Your task to perform on an android device: turn off location history Image 0: 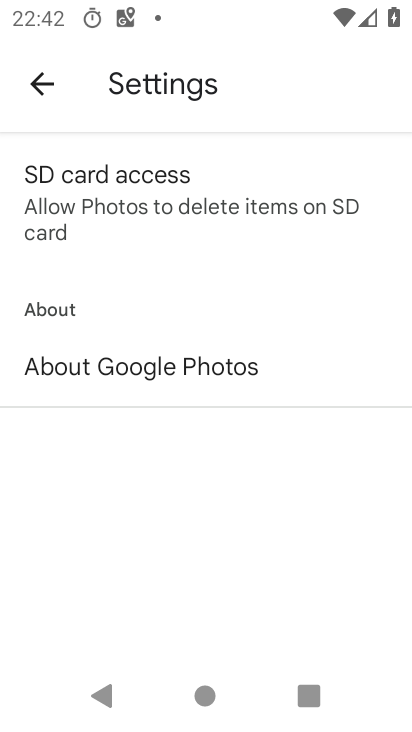
Step 0: click (48, 92)
Your task to perform on an android device: turn off location history Image 1: 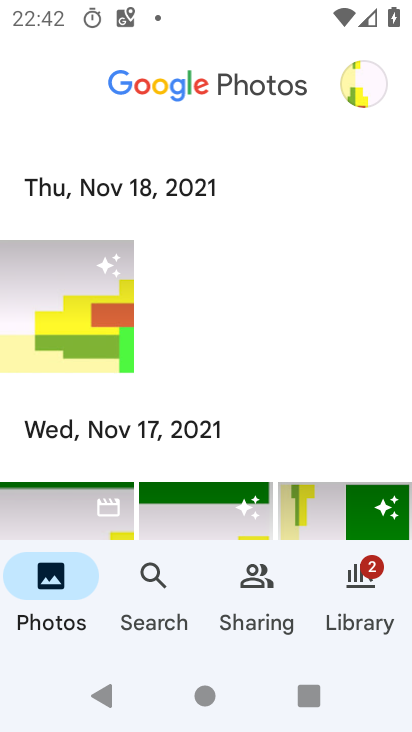
Step 1: press home button
Your task to perform on an android device: turn off location history Image 2: 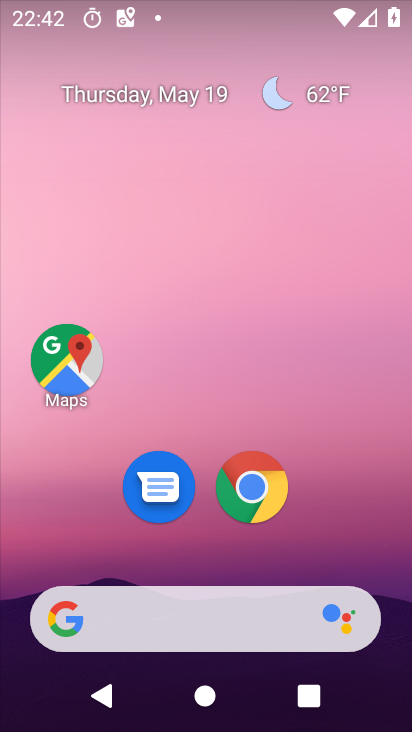
Step 2: drag from (341, 559) to (258, 134)
Your task to perform on an android device: turn off location history Image 3: 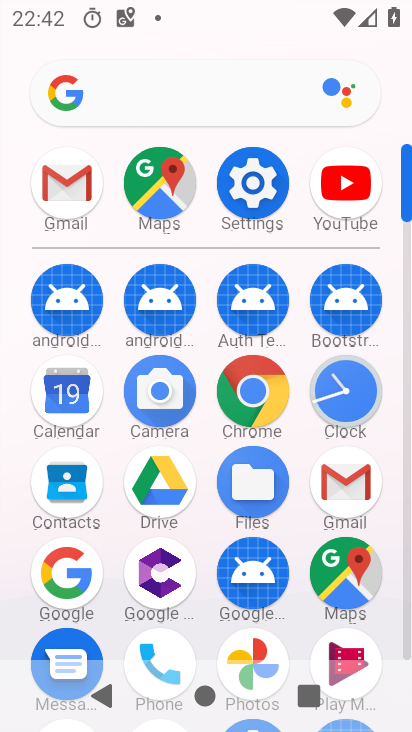
Step 3: click (262, 168)
Your task to perform on an android device: turn off location history Image 4: 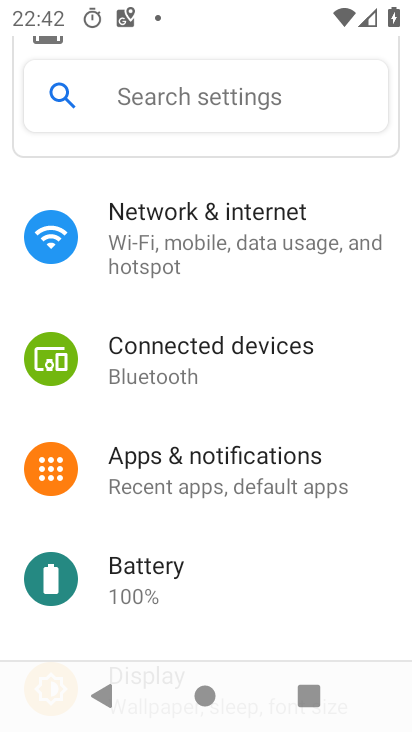
Step 4: drag from (257, 593) to (357, 274)
Your task to perform on an android device: turn off location history Image 5: 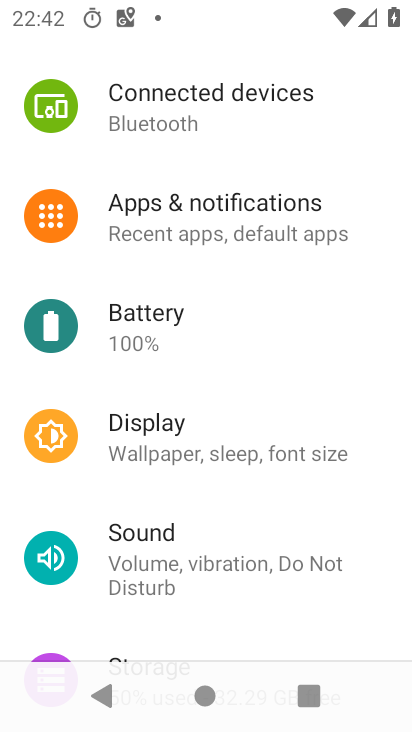
Step 5: drag from (280, 602) to (317, 279)
Your task to perform on an android device: turn off location history Image 6: 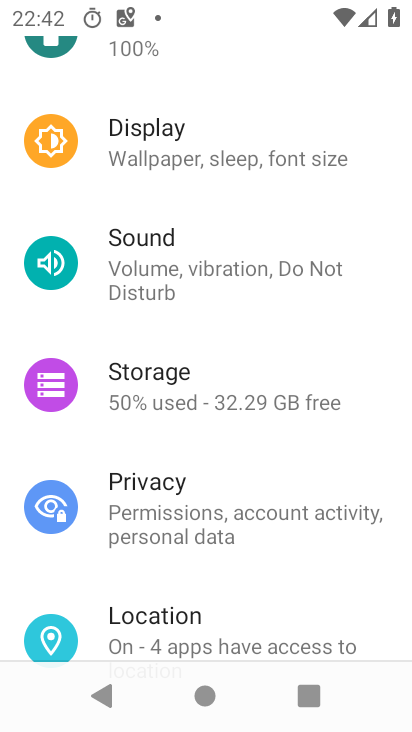
Step 6: click (210, 635)
Your task to perform on an android device: turn off location history Image 7: 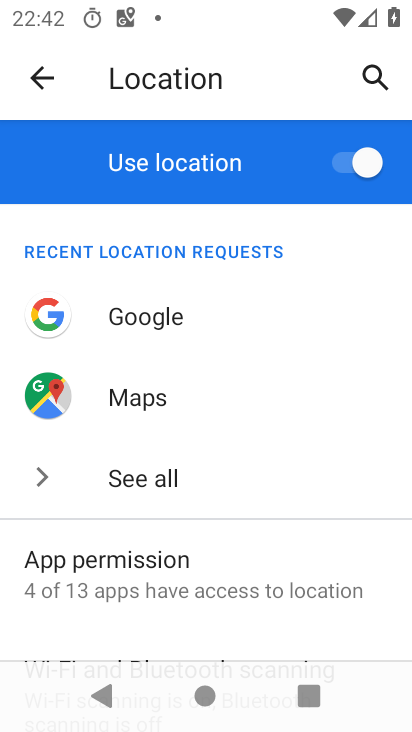
Step 7: drag from (210, 635) to (334, 220)
Your task to perform on an android device: turn off location history Image 8: 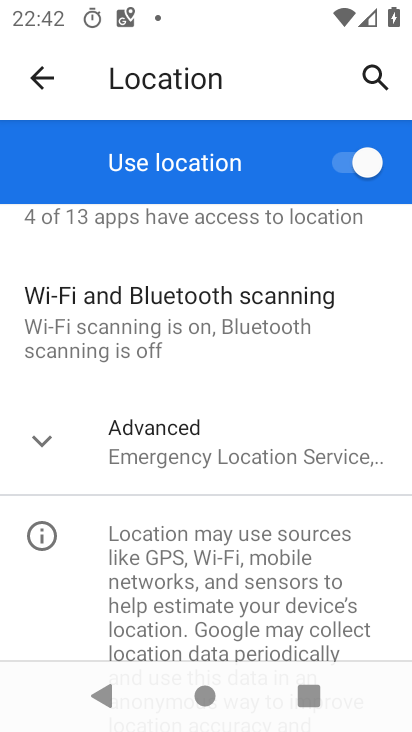
Step 8: click (239, 458)
Your task to perform on an android device: turn off location history Image 9: 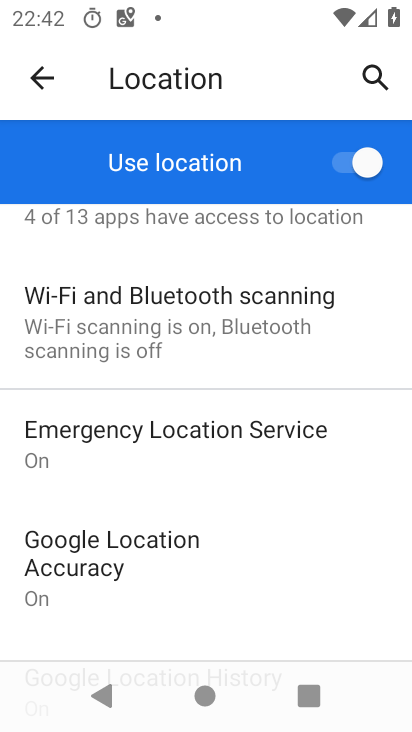
Step 9: drag from (276, 594) to (296, 218)
Your task to perform on an android device: turn off location history Image 10: 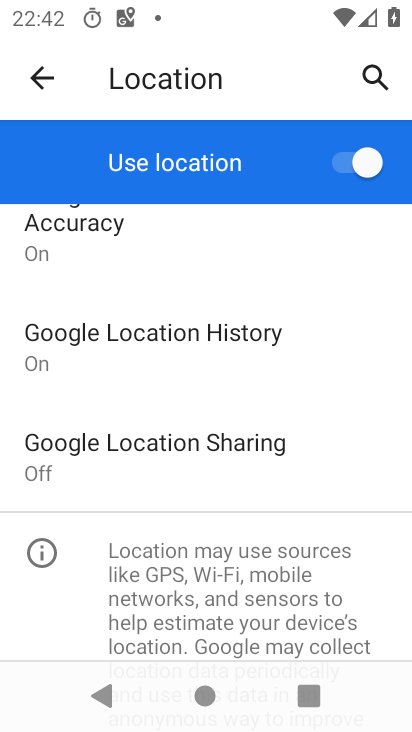
Step 10: click (260, 333)
Your task to perform on an android device: turn off location history Image 11: 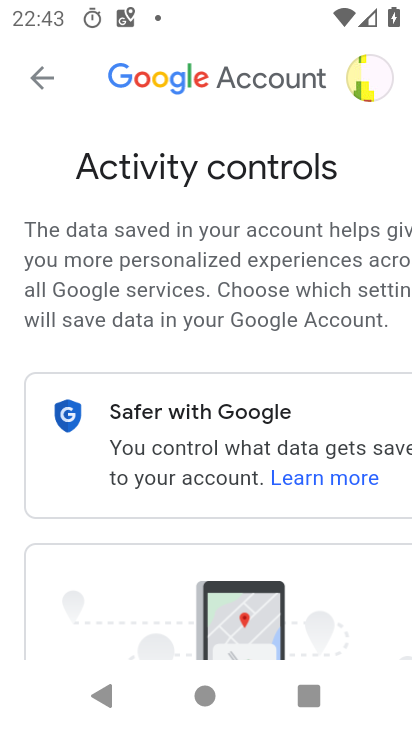
Step 11: drag from (349, 587) to (322, 256)
Your task to perform on an android device: turn off location history Image 12: 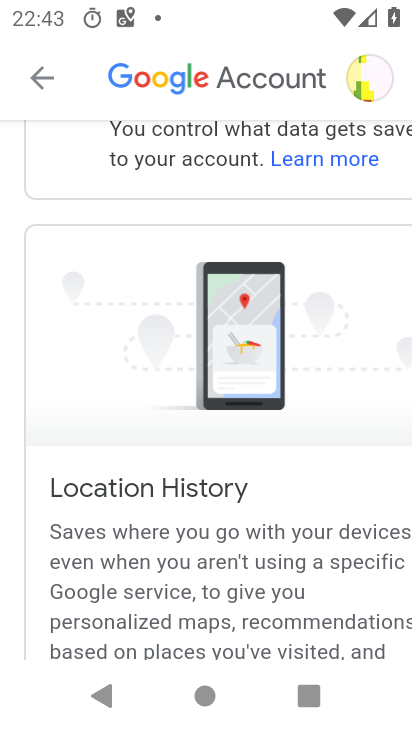
Step 12: drag from (352, 559) to (315, 233)
Your task to perform on an android device: turn off location history Image 13: 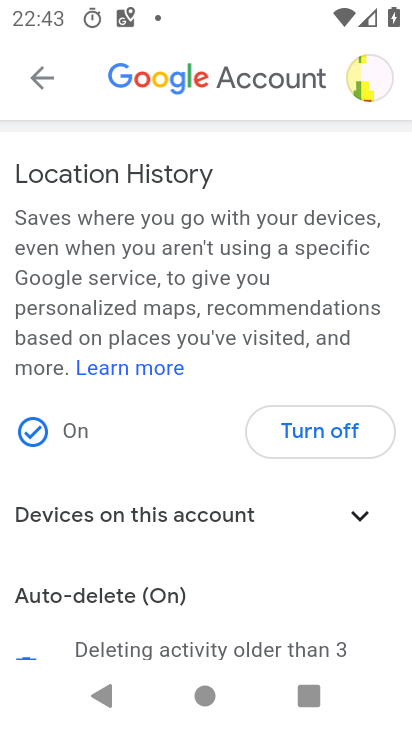
Step 13: click (334, 444)
Your task to perform on an android device: turn off location history Image 14: 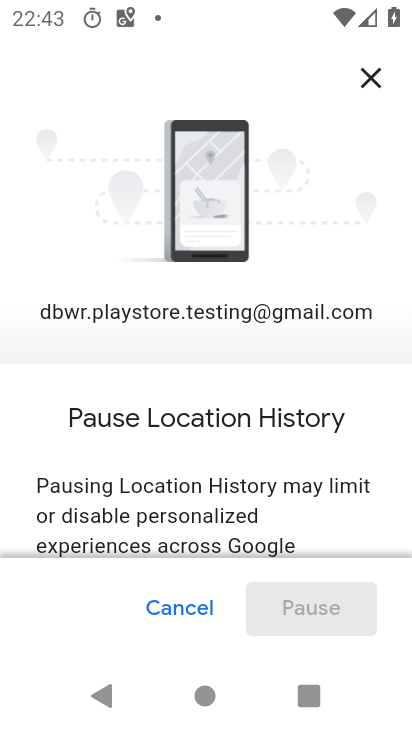
Step 14: drag from (310, 524) to (273, 143)
Your task to perform on an android device: turn off location history Image 15: 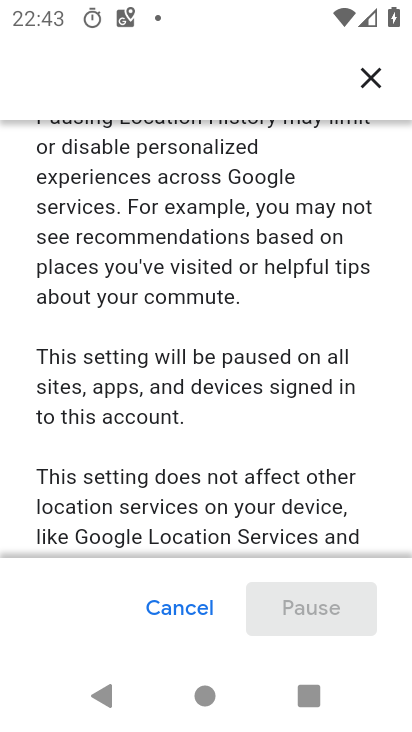
Step 15: drag from (275, 514) to (216, 159)
Your task to perform on an android device: turn off location history Image 16: 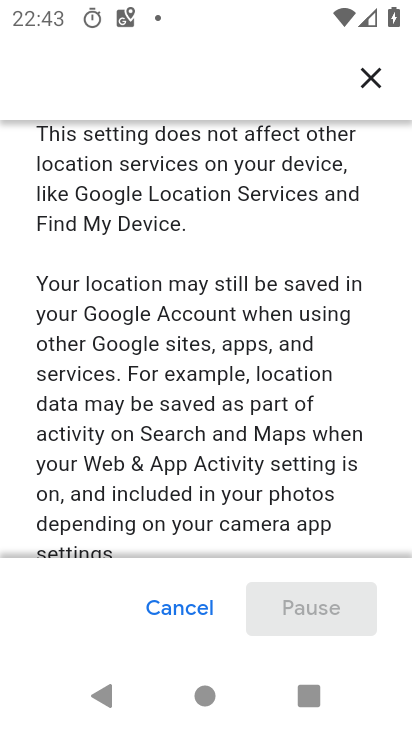
Step 16: drag from (289, 467) to (249, 184)
Your task to perform on an android device: turn off location history Image 17: 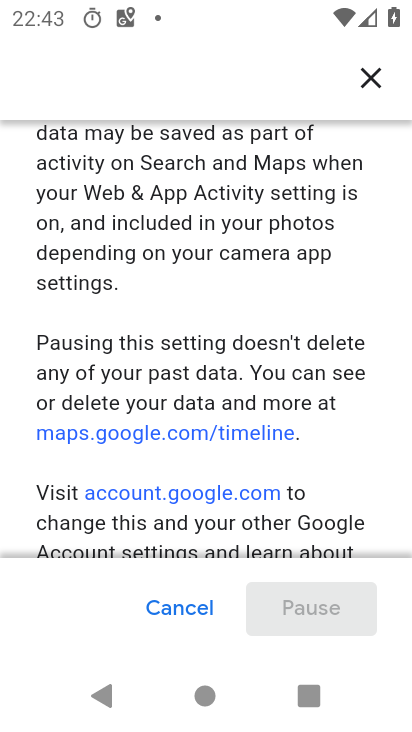
Step 17: drag from (294, 522) to (267, 197)
Your task to perform on an android device: turn off location history Image 18: 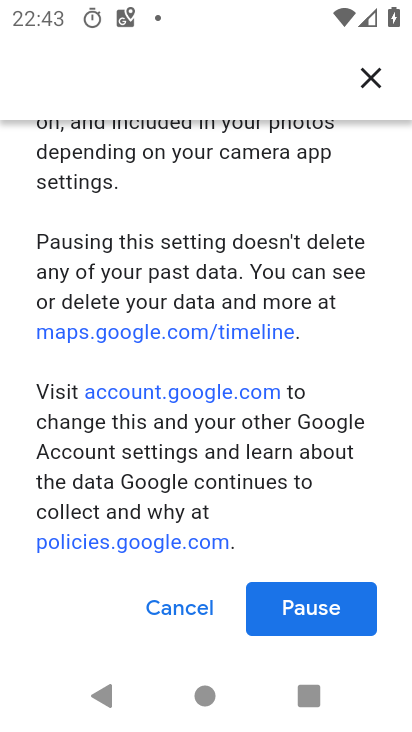
Step 18: click (305, 601)
Your task to perform on an android device: turn off location history Image 19: 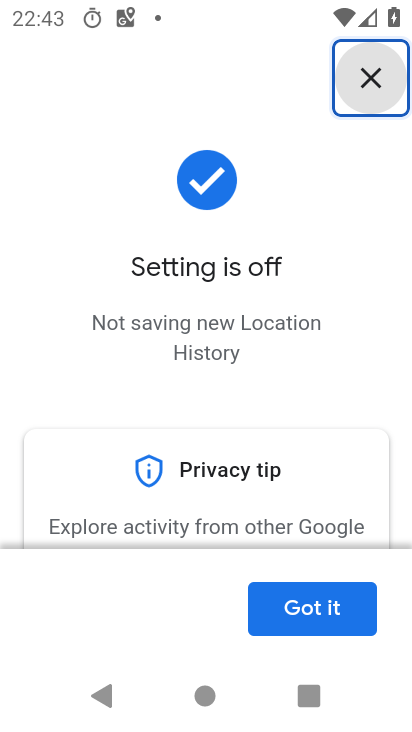
Step 19: click (305, 601)
Your task to perform on an android device: turn off location history Image 20: 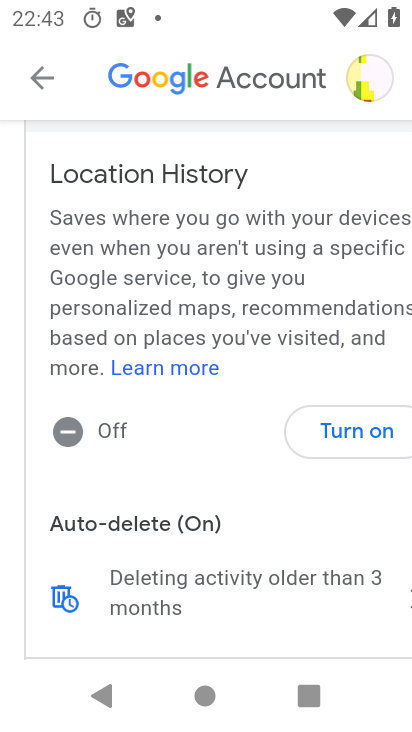
Step 20: task complete